Your task to perform on an android device: toggle wifi Image 0: 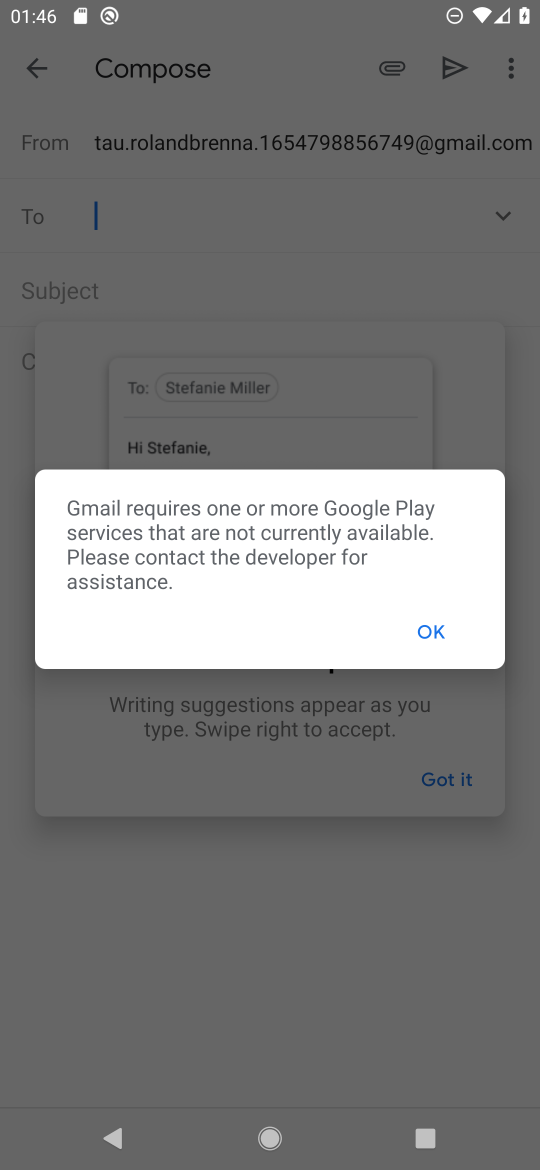
Step 0: drag from (286, 287) to (171, 1145)
Your task to perform on an android device: toggle wifi Image 1: 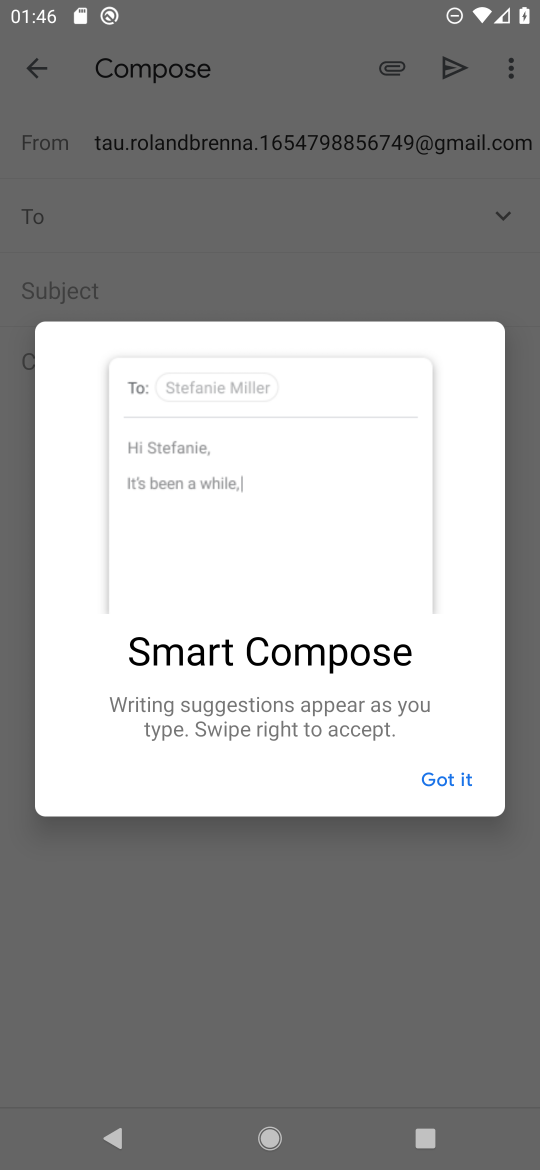
Step 1: drag from (172, 19) to (266, 1063)
Your task to perform on an android device: toggle wifi Image 2: 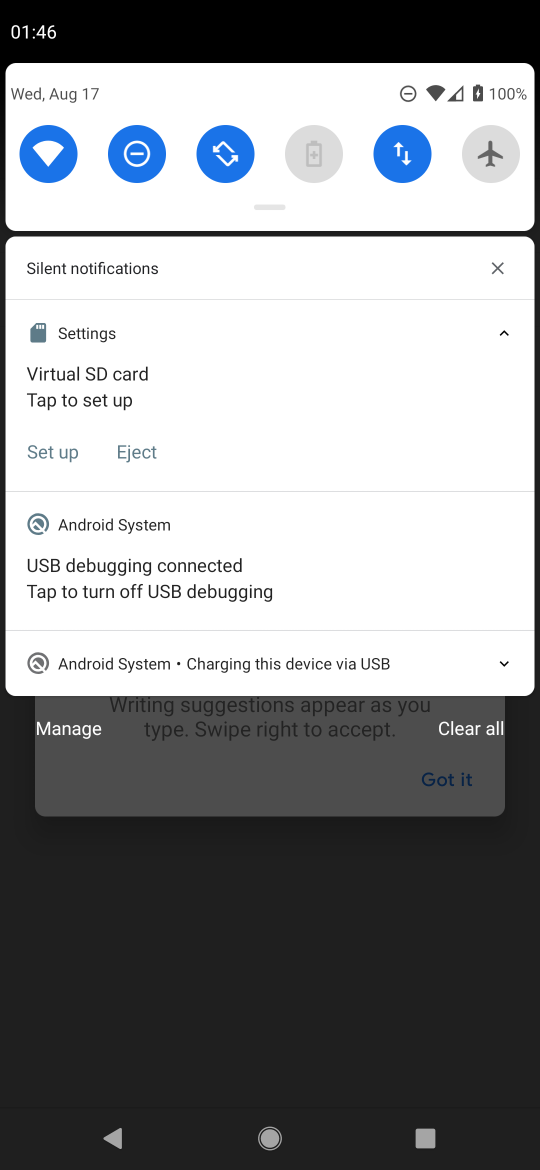
Step 2: click (35, 147)
Your task to perform on an android device: toggle wifi Image 3: 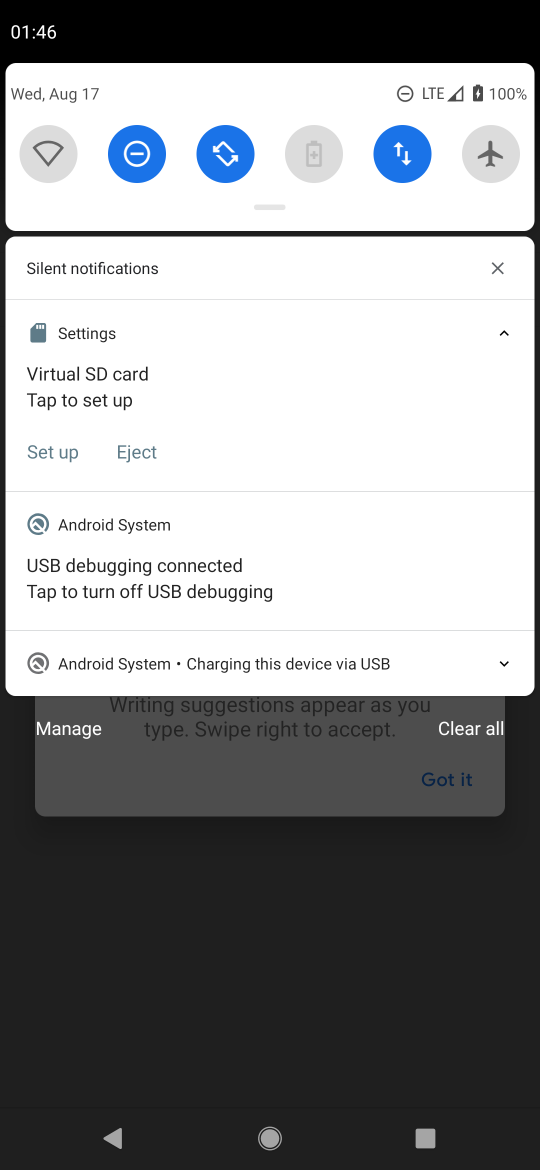
Step 3: click (35, 147)
Your task to perform on an android device: toggle wifi Image 4: 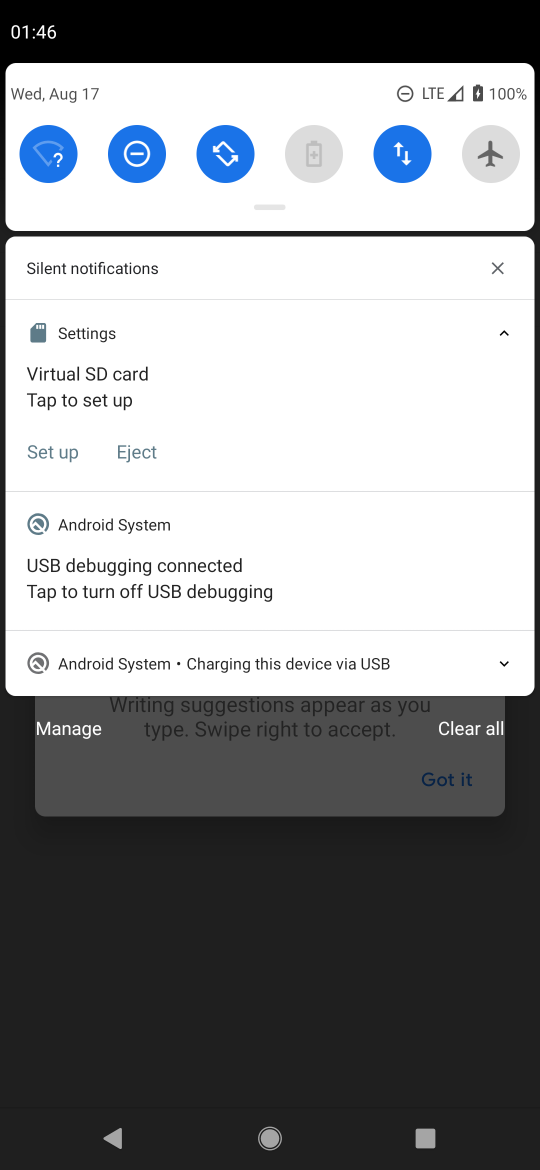
Step 4: click (35, 147)
Your task to perform on an android device: toggle wifi Image 5: 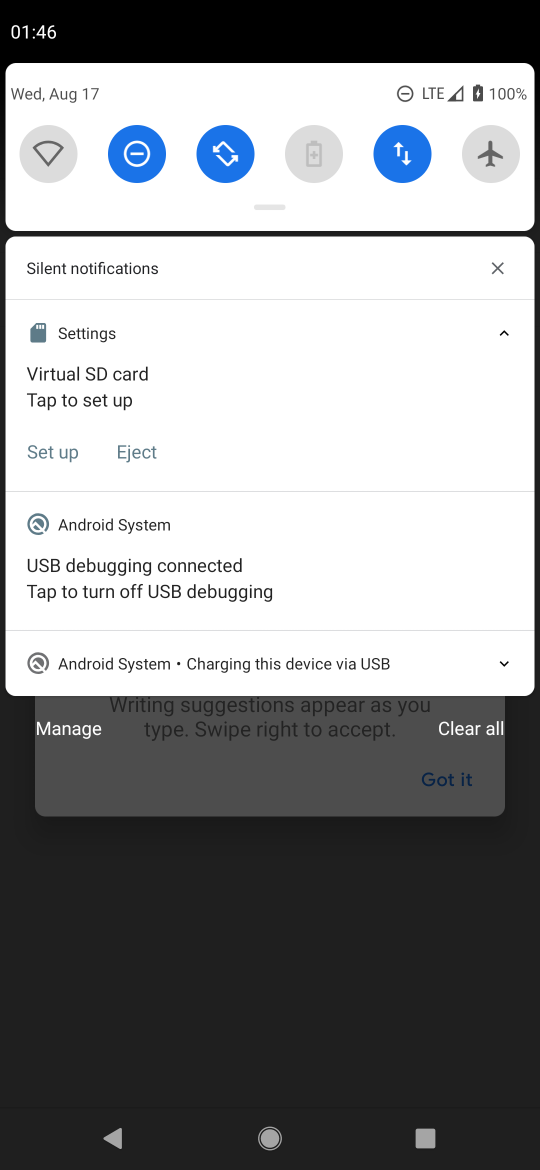
Step 5: click (35, 147)
Your task to perform on an android device: toggle wifi Image 6: 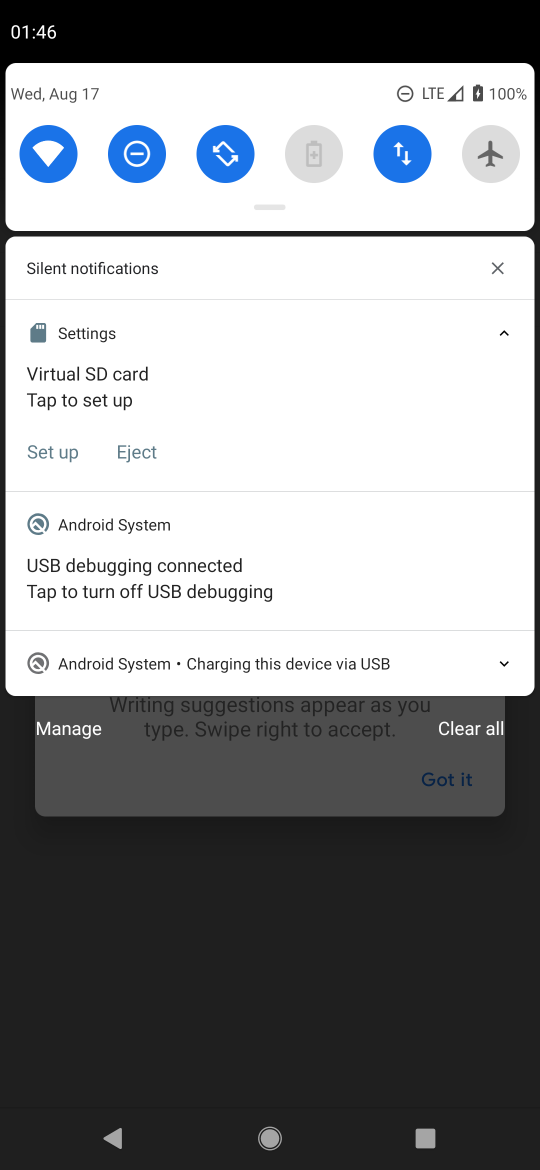
Step 6: task complete